Your task to perform on an android device: Go to privacy settings Image 0: 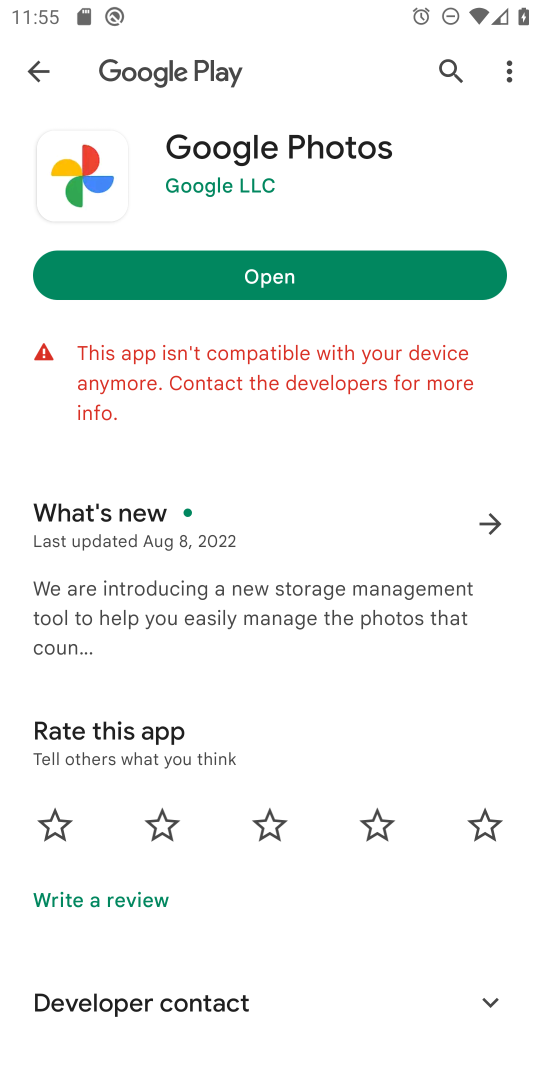
Step 0: press home button
Your task to perform on an android device: Go to privacy settings Image 1: 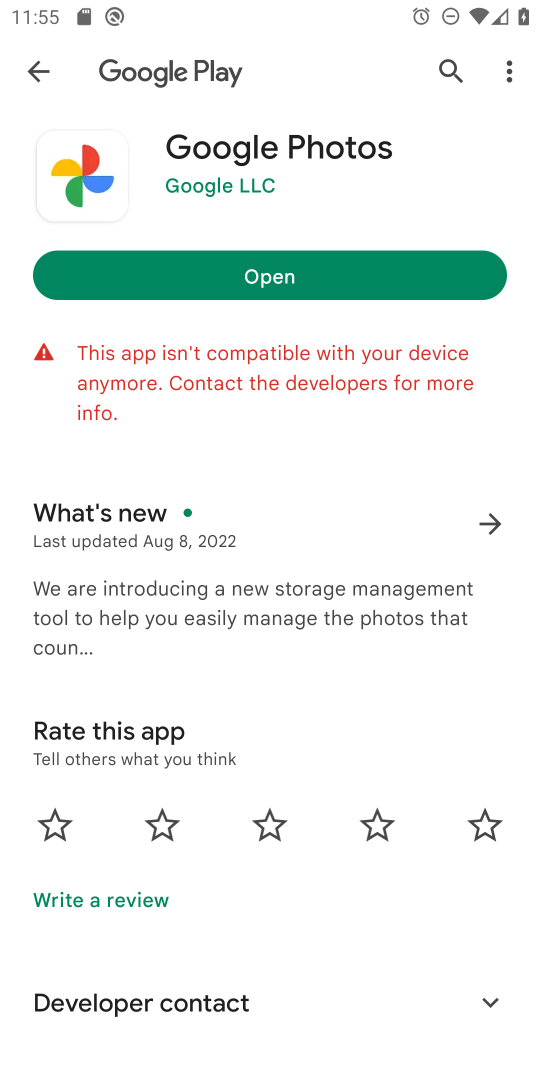
Step 1: press home button
Your task to perform on an android device: Go to privacy settings Image 2: 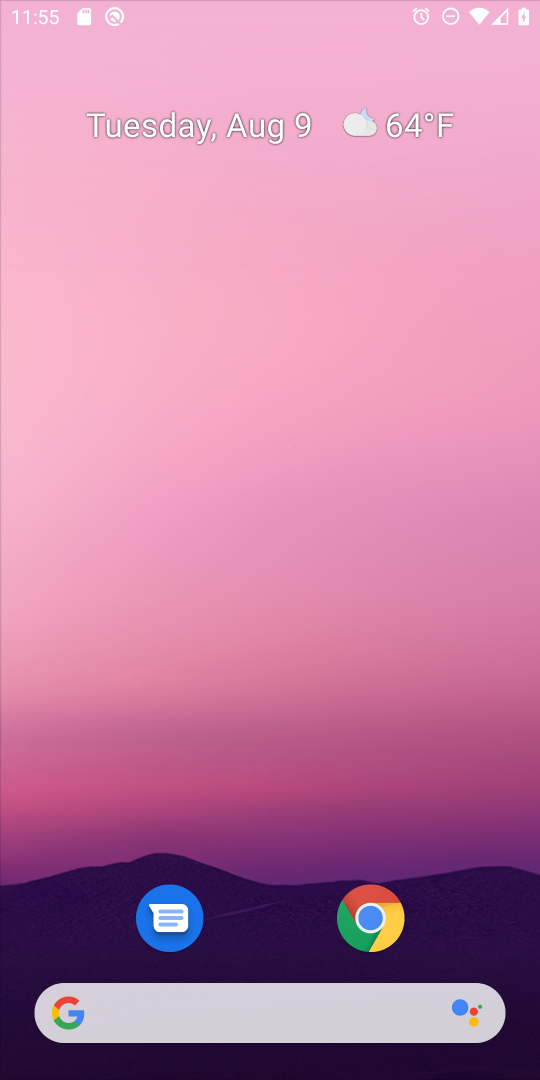
Step 2: press home button
Your task to perform on an android device: Go to privacy settings Image 3: 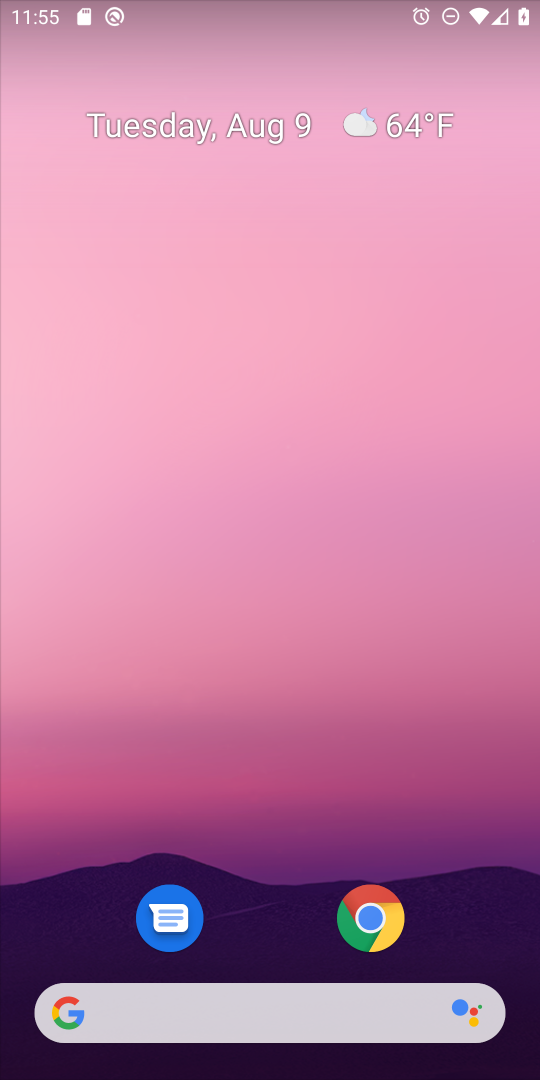
Step 3: drag from (274, 880) to (260, 91)
Your task to perform on an android device: Go to privacy settings Image 4: 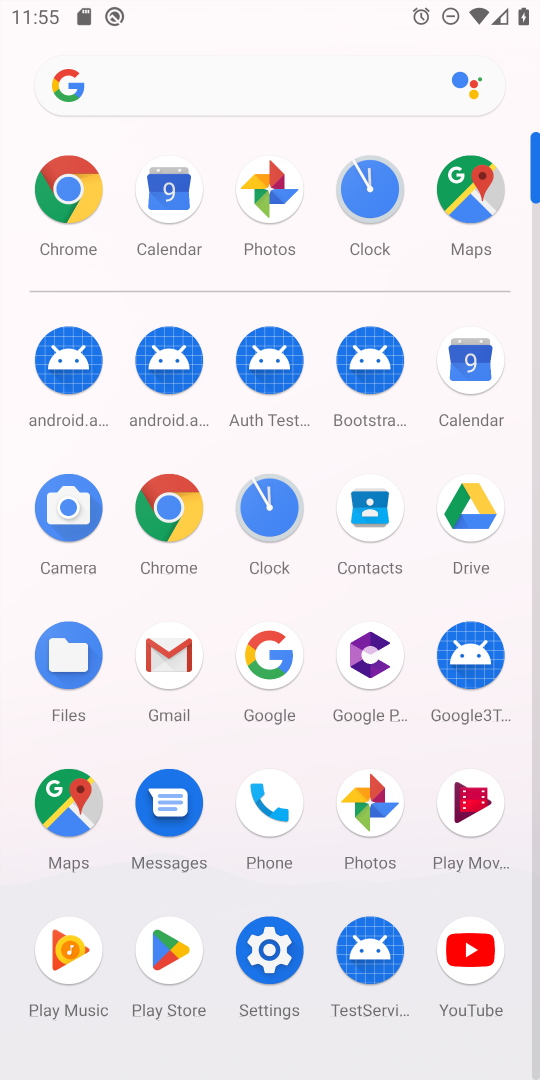
Step 4: click (278, 930)
Your task to perform on an android device: Go to privacy settings Image 5: 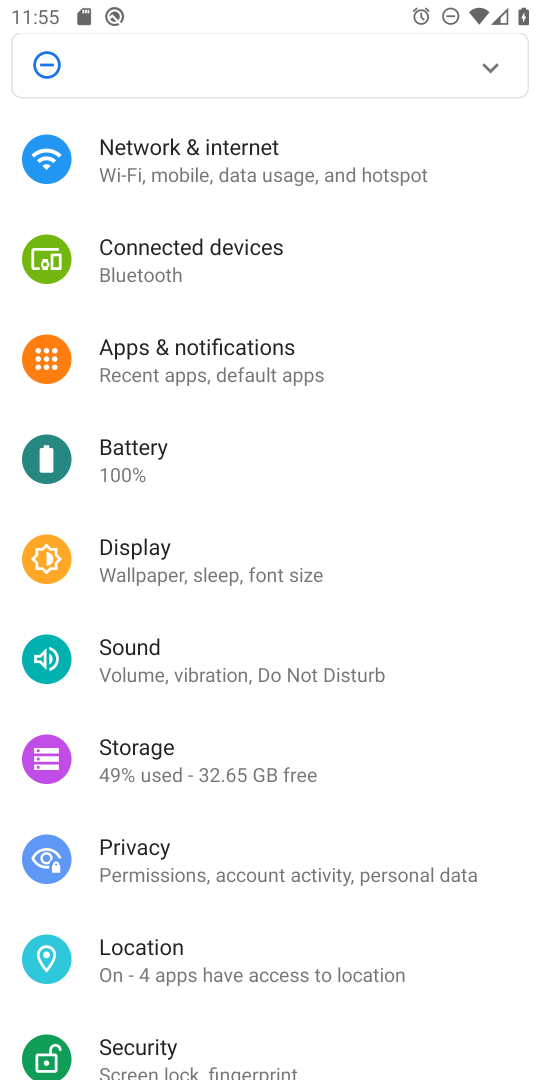
Step 5: click (140, 895)
Your task to perform on an android device: Go to privacy settings Image 6: 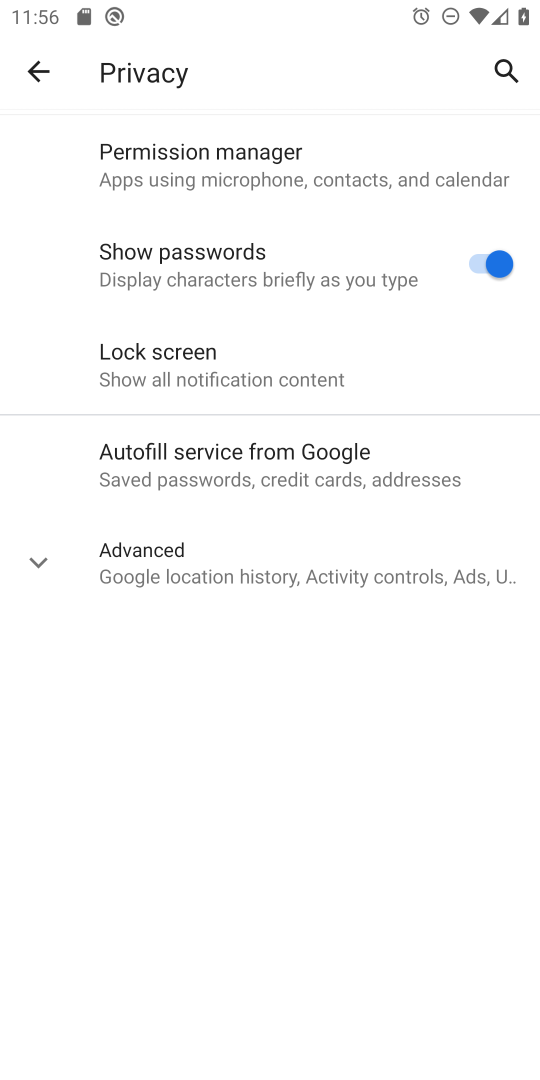
Step 6: task complete